Your task to perform on an android device: Go to Yahoo.com Image 0: 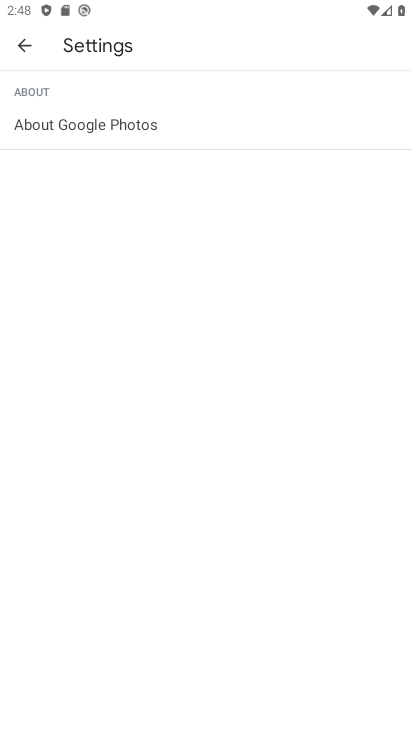
Step 0: press home button
Your task to perform on an android device: Go to Yahoo.com Image 1: 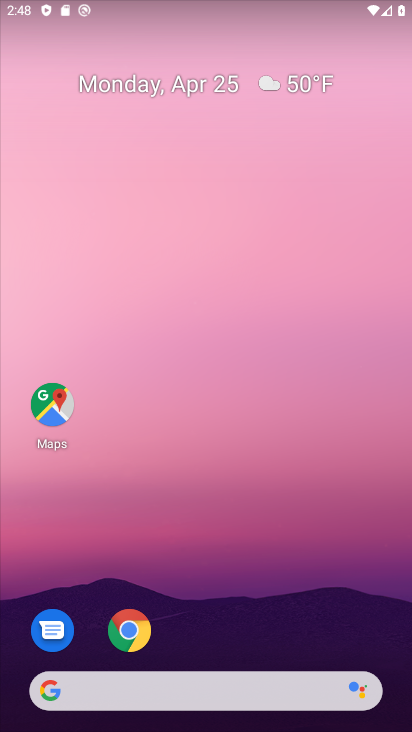
Step 1: click (125, 638)
Your task to perform on an android device: Go to Yahoo.com Image 2: 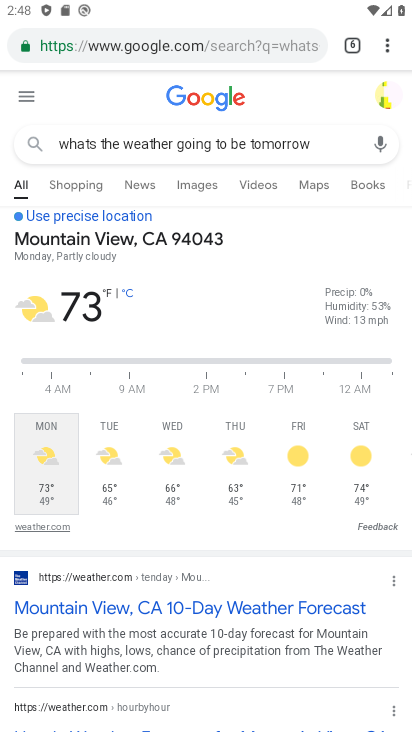
Step 2: click (347, 46)
Your task to perform on an android device: Go to Yahoo.com Image 3: 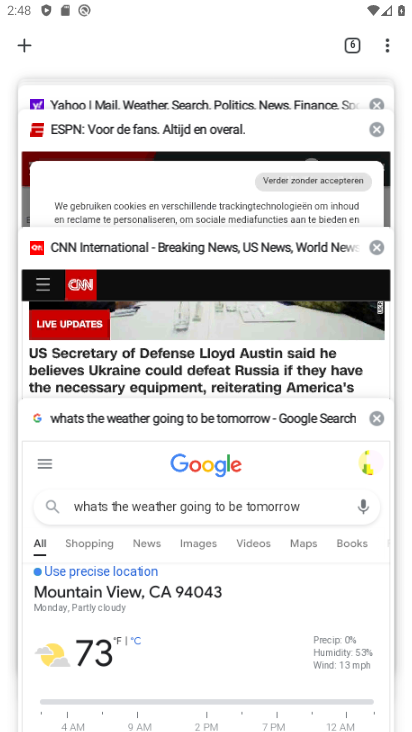
Step 3: drag from (144, 195) to (142, 447)
Your task to perform on an android device: Go to Yahoo.com Image 4: 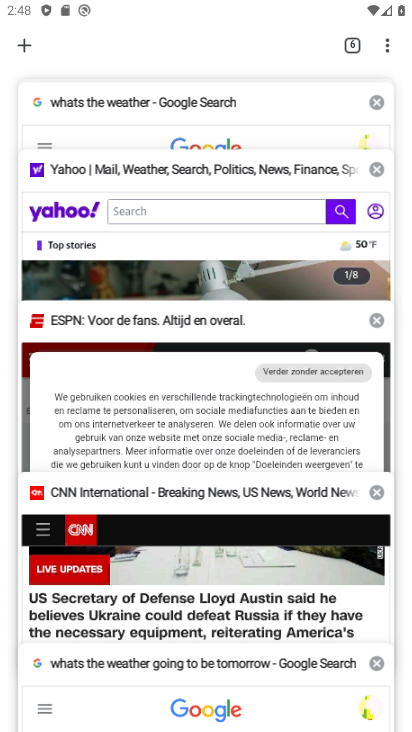
Step 4: click (134, 213)
Your task to perform on an android device: Go to Yahoo.com Image 5: 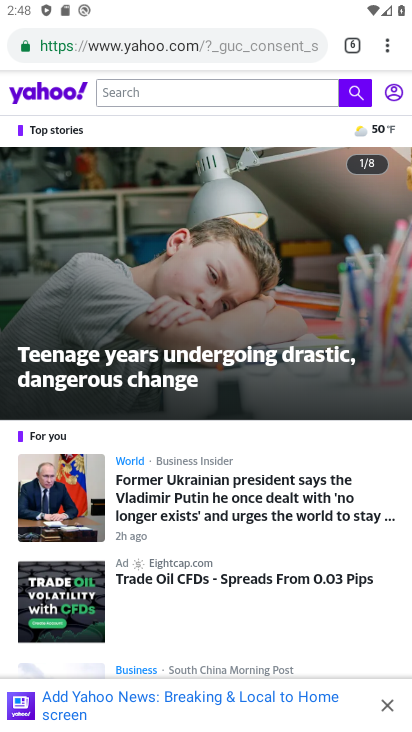
Step 5: task complete